Your task to perform on an android device: turn on showing notifications on the lock screen Image 0: 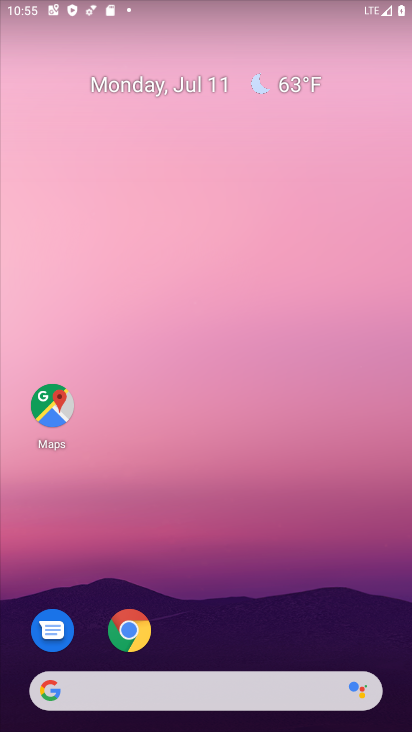
Step 0: drag from (343, 624) to (286, 26)
Your task to perform on an android device: turn on showing notifications on the lock screen Image 1: 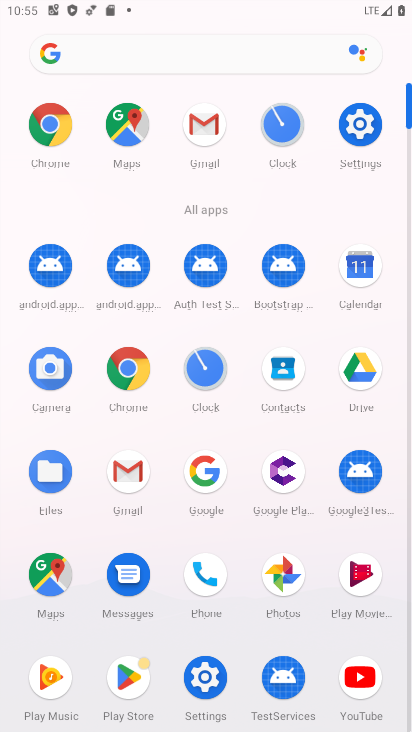
Step 1: click (206, 673)
Your task to perform on an android device: turn on showing notifications on the lock screen Image 2: 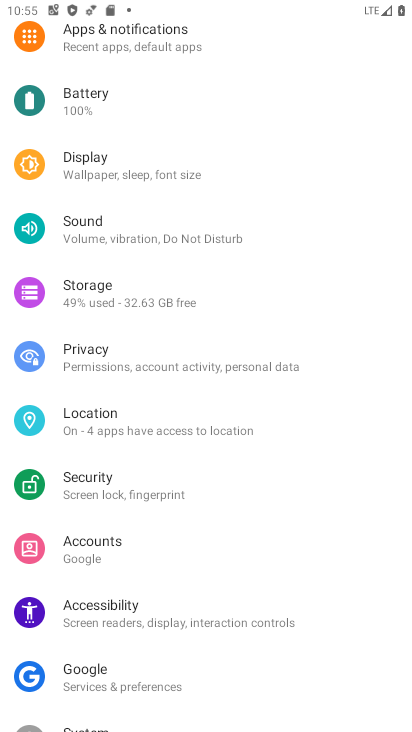
Step 2: drag from (297, 165) to (306, 342)
Your task to perform on an android device: turn on showing notifications on the lock screen Image 3: 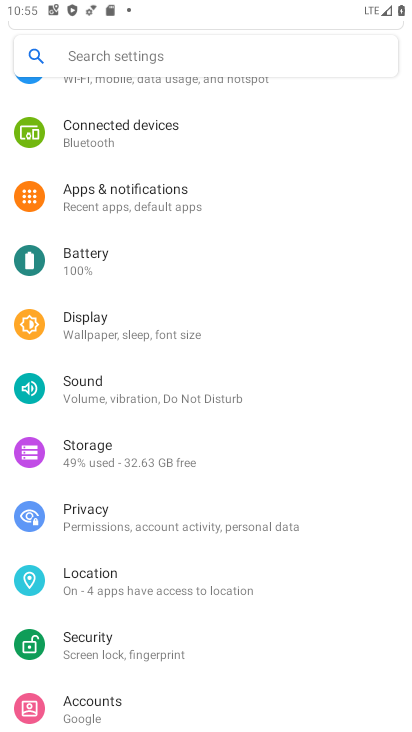
Step 3: click (115, 187)
Your task to perform on an android device: turn on showing notifications on the lock screen Image 4: 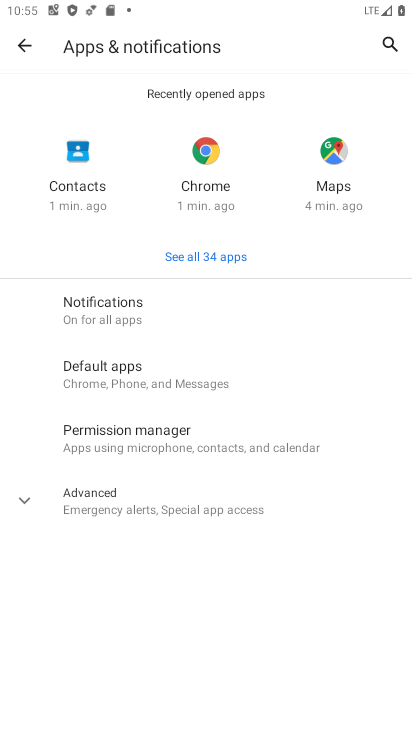
Step 4: click (91, 309)
Your task to perform on an android device: turn on showing notifications on the lock screen Image 5: 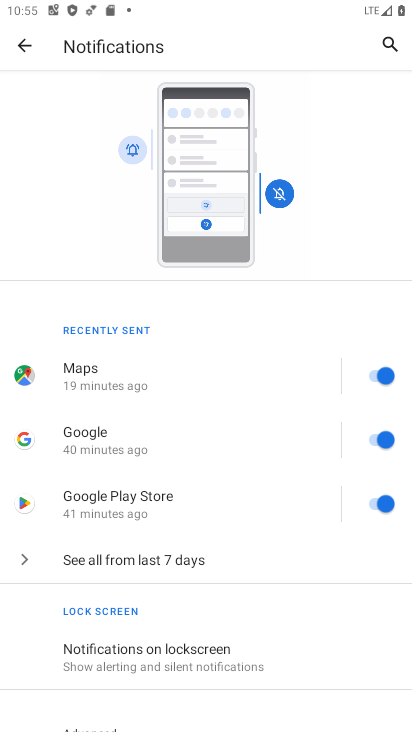
Step 5: click (185, 652)
Your task to perform on an android device: turn on showing notifications on the lock screen Image 6: 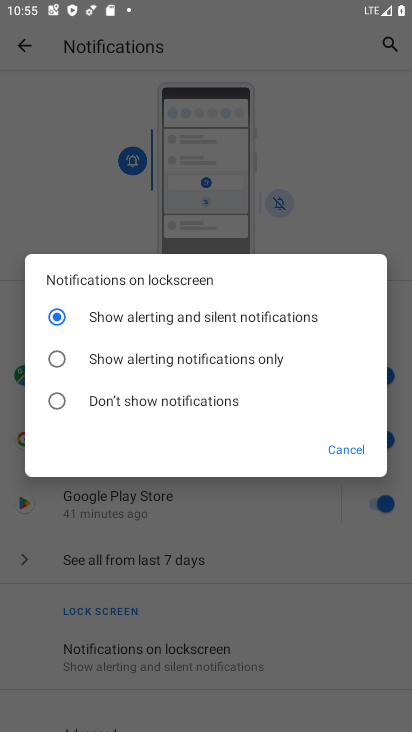
Step 6: task complete